Your task to perform on an android device: Open accessibility settings Image 0: 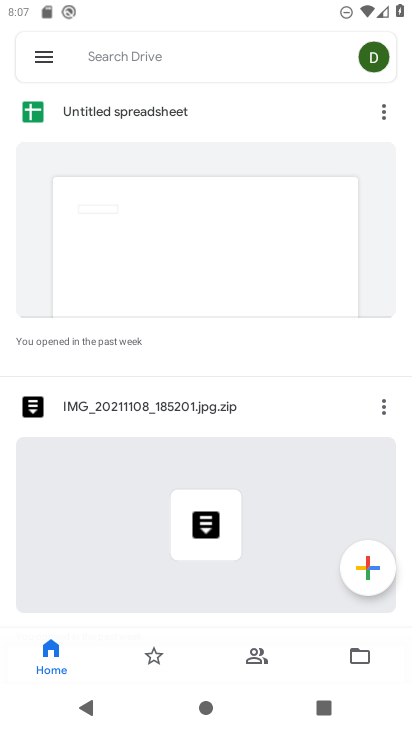
Step 0: press home button
Your task to perform on an android device: Open accessibility settings Image 1: 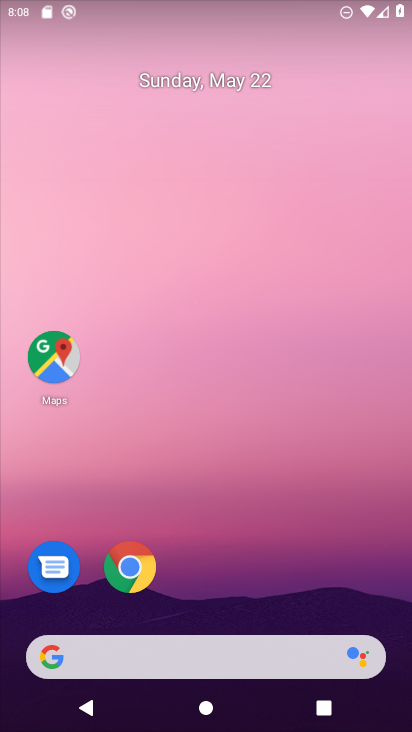
Step 1: drag from (235, 578) to (351, 5)
Your task to perform on an android device: Open accessibility settings Image 2: 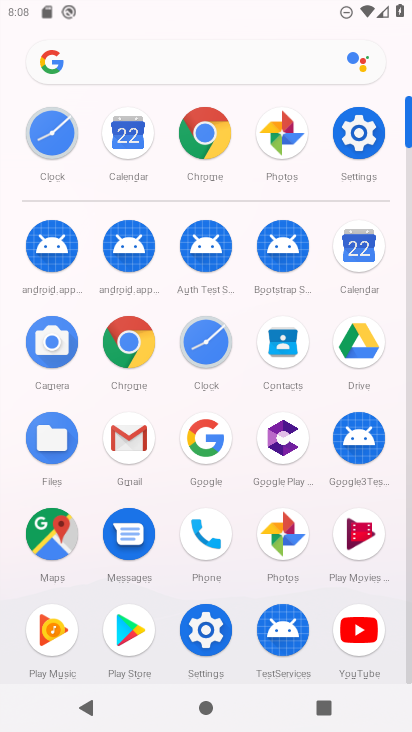
Step 2: click (371, 133)
Your task to perform on an android device: Open accessibility settings Image 3: 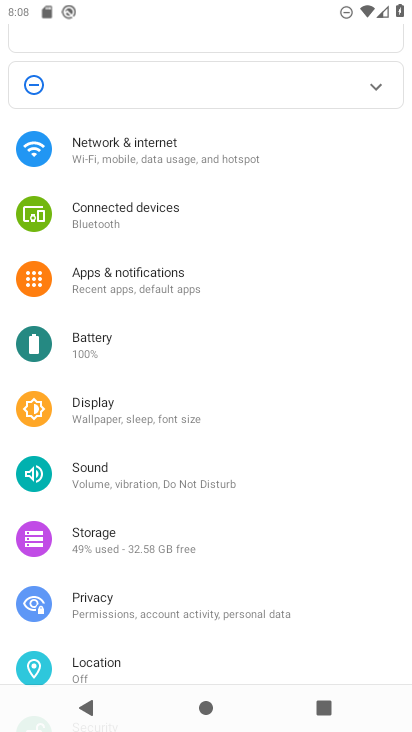
Step 3: drag from (166, 543) to (257, 83)
Your task to perform on an android device: Open accessibility settings Image 4: 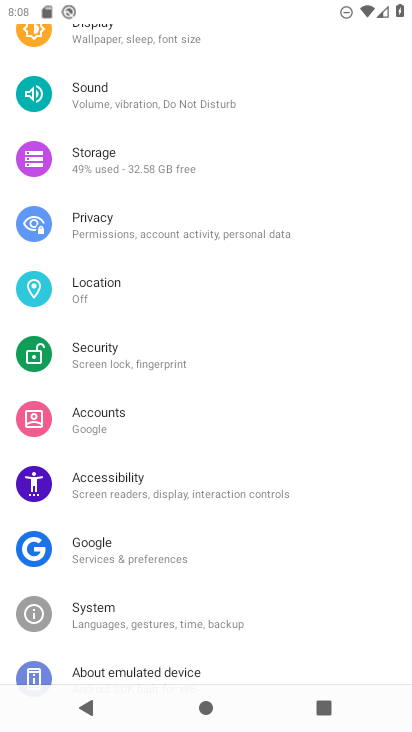
Step 4: click (128, 473)
Your task to perform on an android device: Open accessibility settings Image 5: 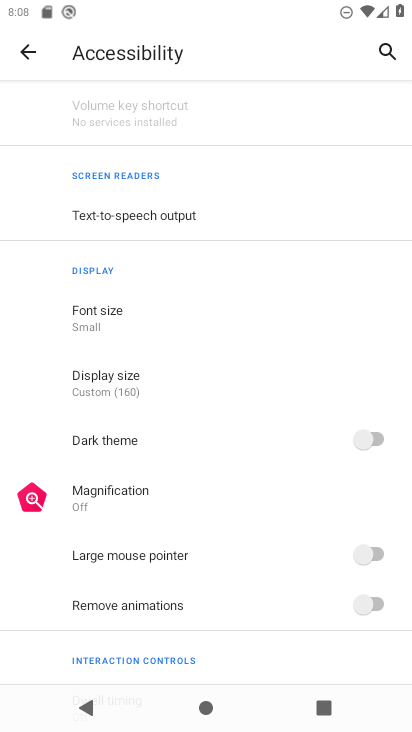
Step 5: task complete